Your task to perform on an android device: Search for seafood restaurants on Google Maps Image 0: 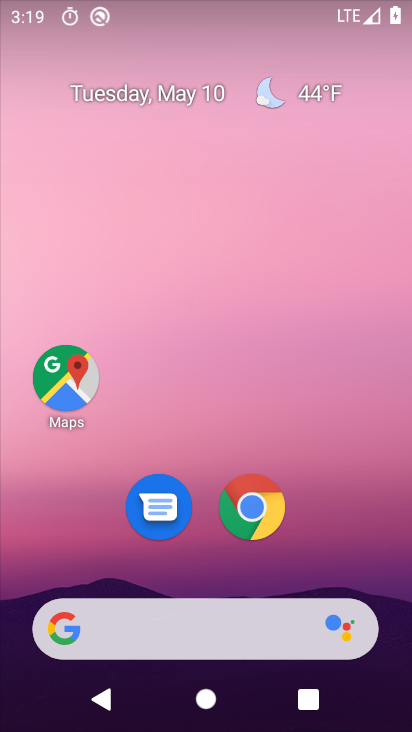
Step 0: click (65, 359)
Your task to perform on an android device: Search for seafood restaurants on Google Maps Image 1: 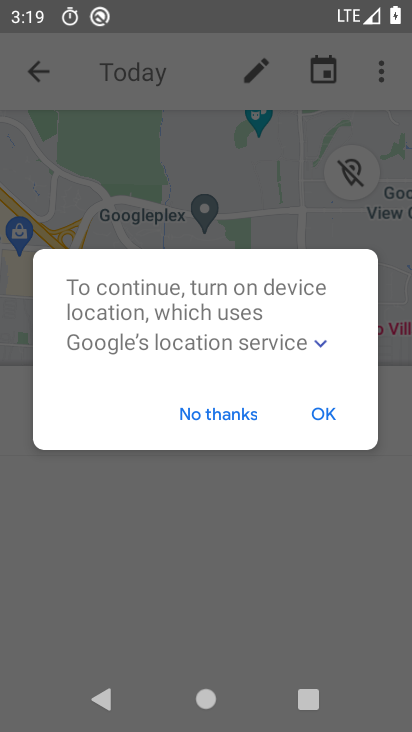
Step 1: click (325, 407)
Your task to perform on an android device: Search for seafood restaurants on Google Maps Image 2: 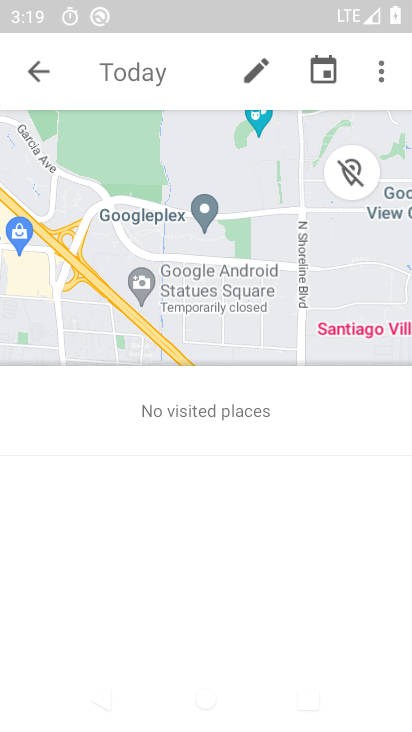
Step 2: click (30, 80)
Your task to perform on an android device: Search for seafood restaurants on Google Maps Image 3: 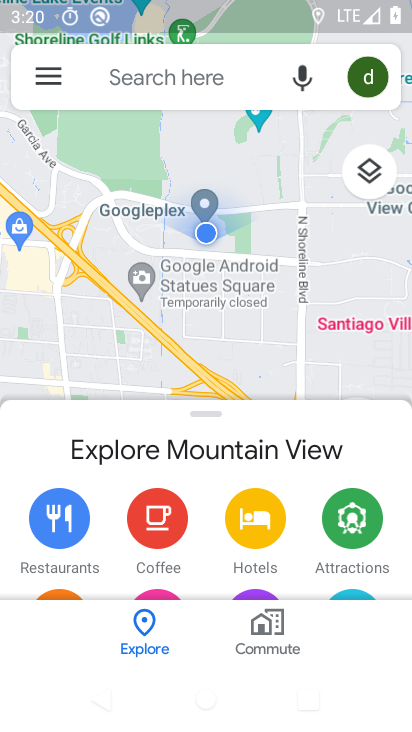
Step 3: click (157, 78)
Your task to perform on an android device: Search for seafood restaurants on Google Maps Image 4: 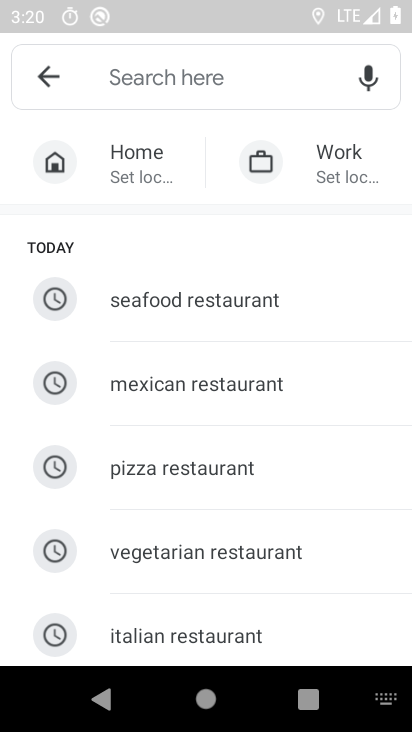
Step 4: drag from (207, 593) to (204, 421)
Your task to perform on an android device: Search for seafood restaurants on Google Maps Image 5: 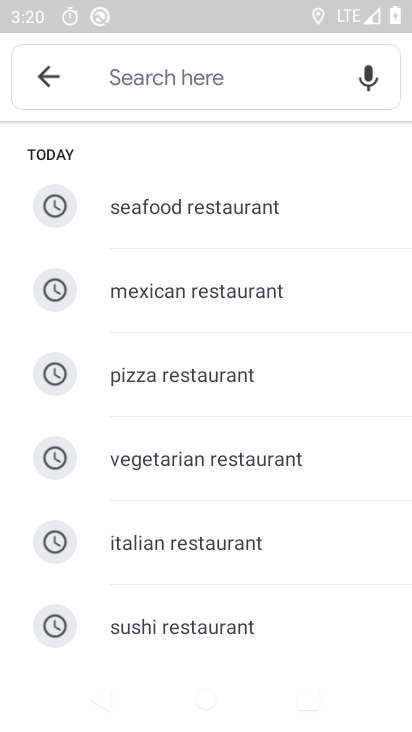
Step 5: click (185, 204)
Your task to perform on an android device: Search for seafood restaurants on Google Maps Image 6: 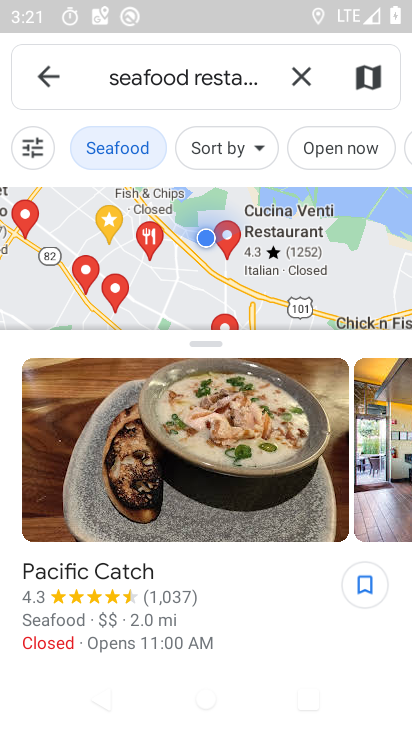
Step 6: task complete